Your task to perform on an android device: Open calendar and show me the third week of next month Image 0: 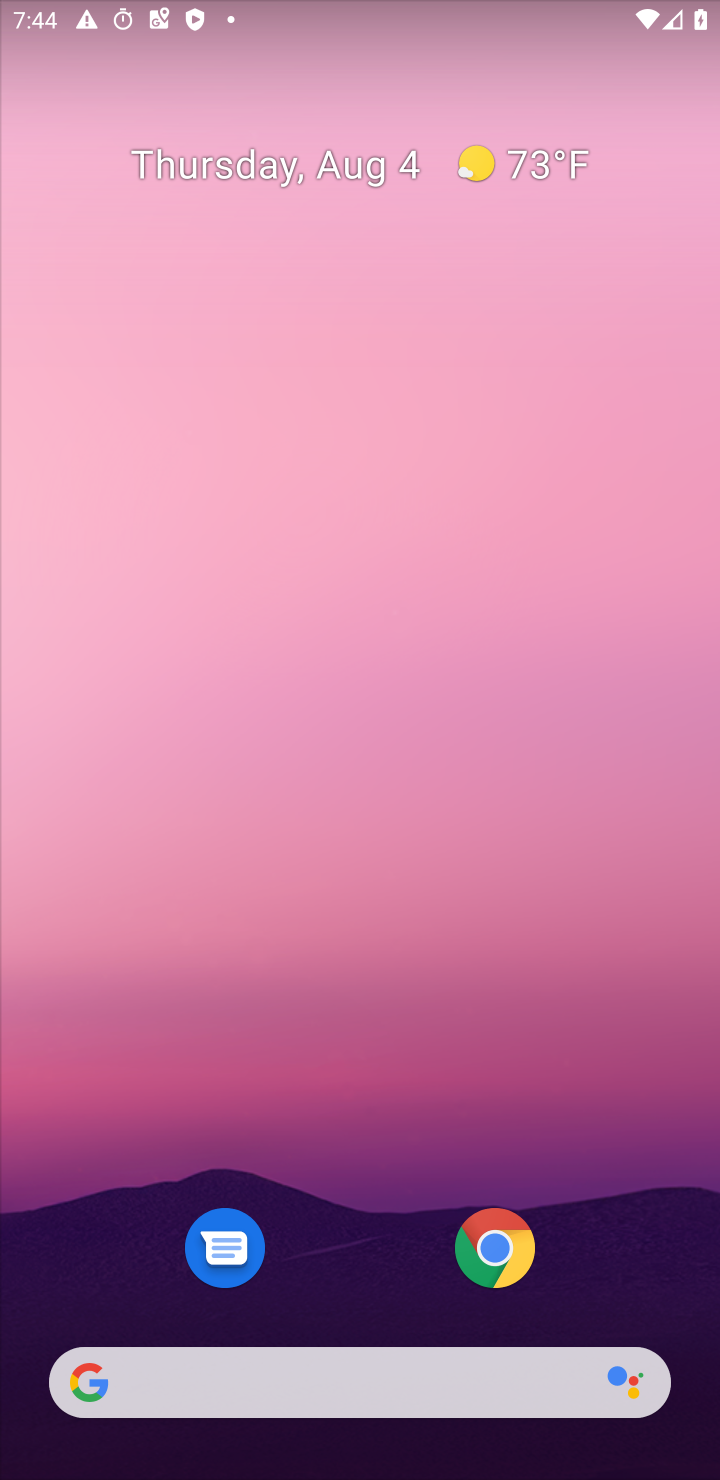
Step 0: drag from (426, 1360) to (240, 203)
Your task to perform on an android device: Open calendar and show me the third week of next month Image 1: 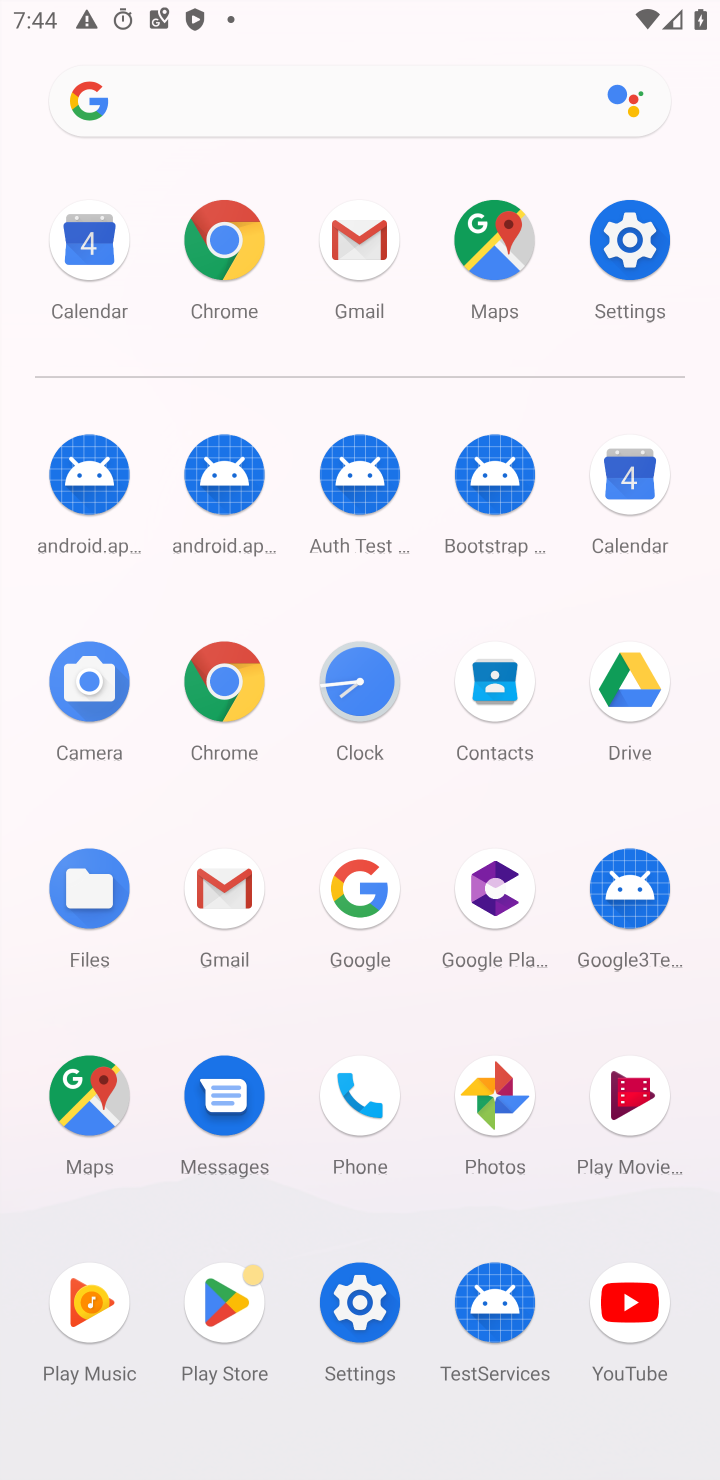
Step 1: click (598, 505)
Your task to perform on an android device: Open calendar and show me the third week of next month Image 2: 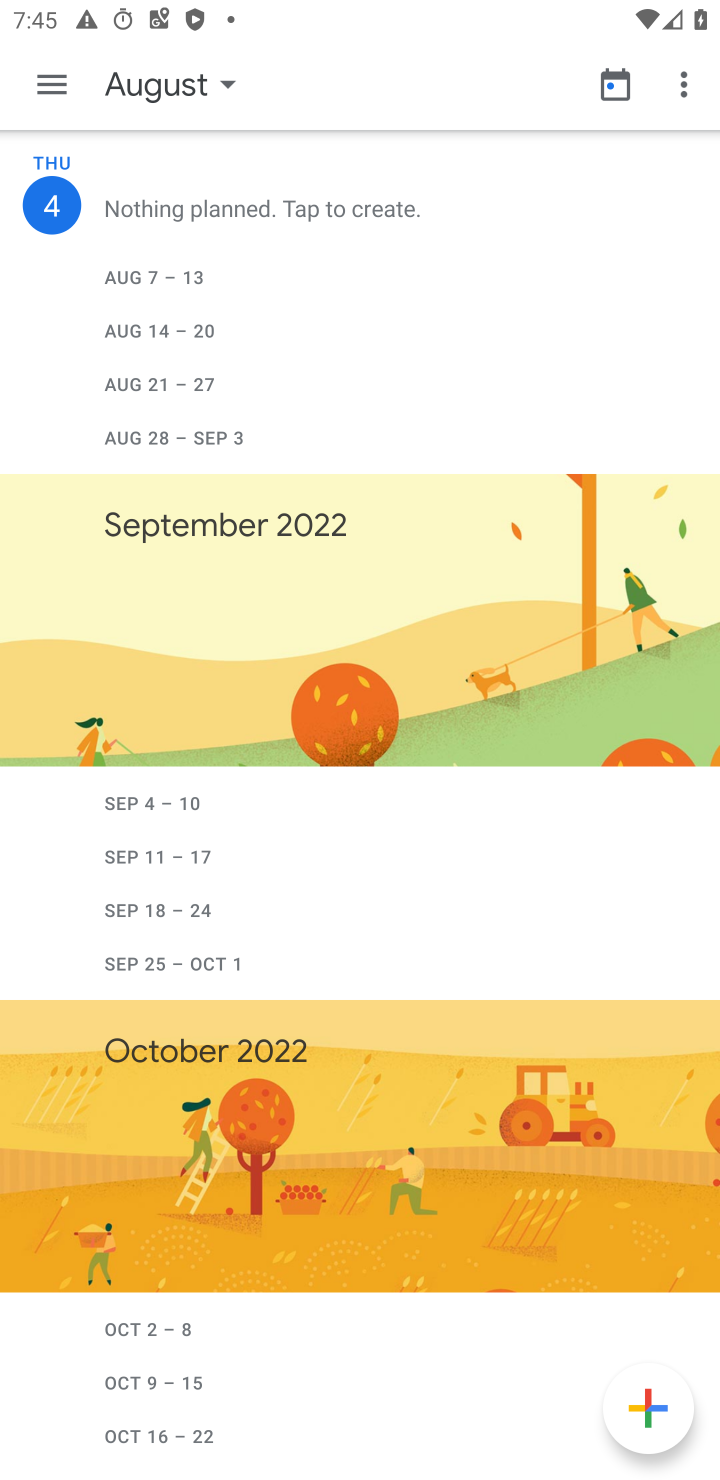
Step 2: click (62, 91)
Your task to perform on an android device: Open calendar and show me the third week of next month Image 3: 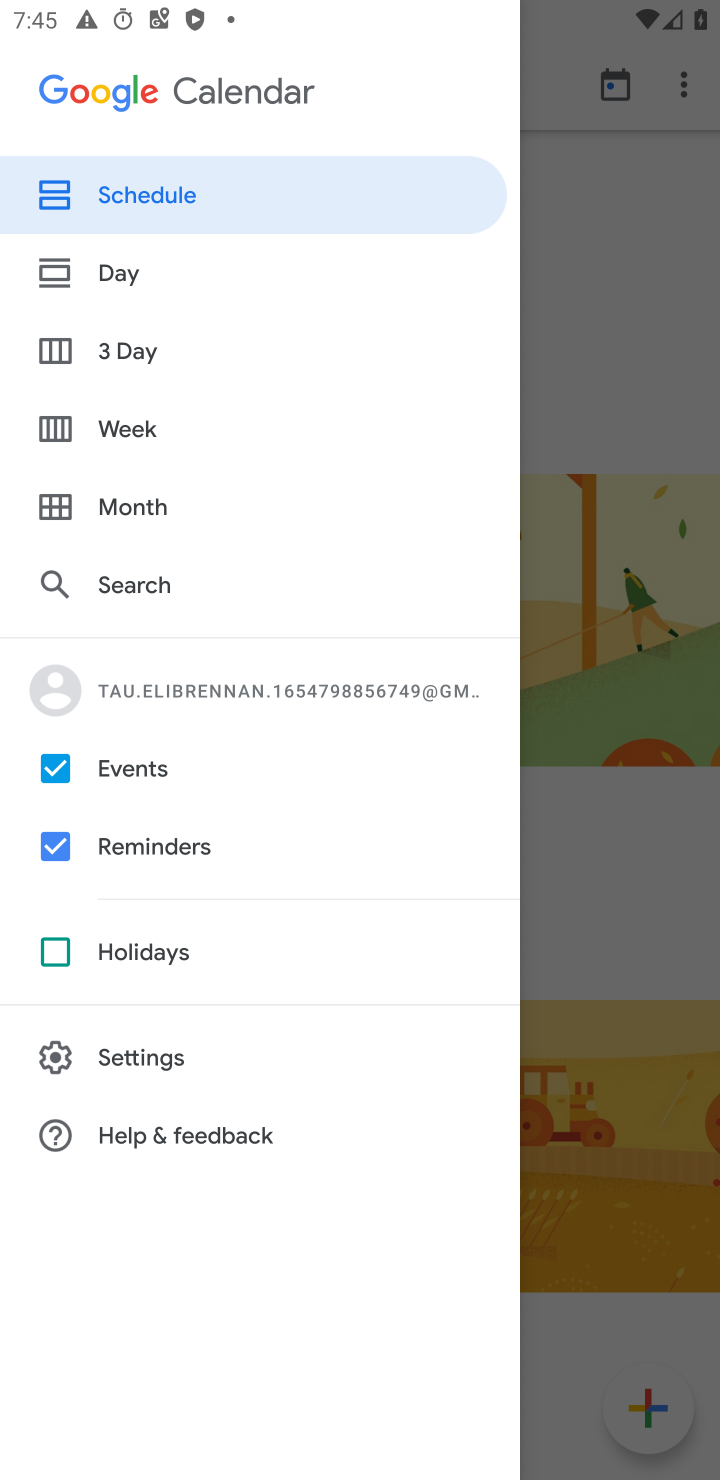
Step 3: click (152, 509)
Your task to perform on an android device: Open calendar and show me the third week of next month Image 4: 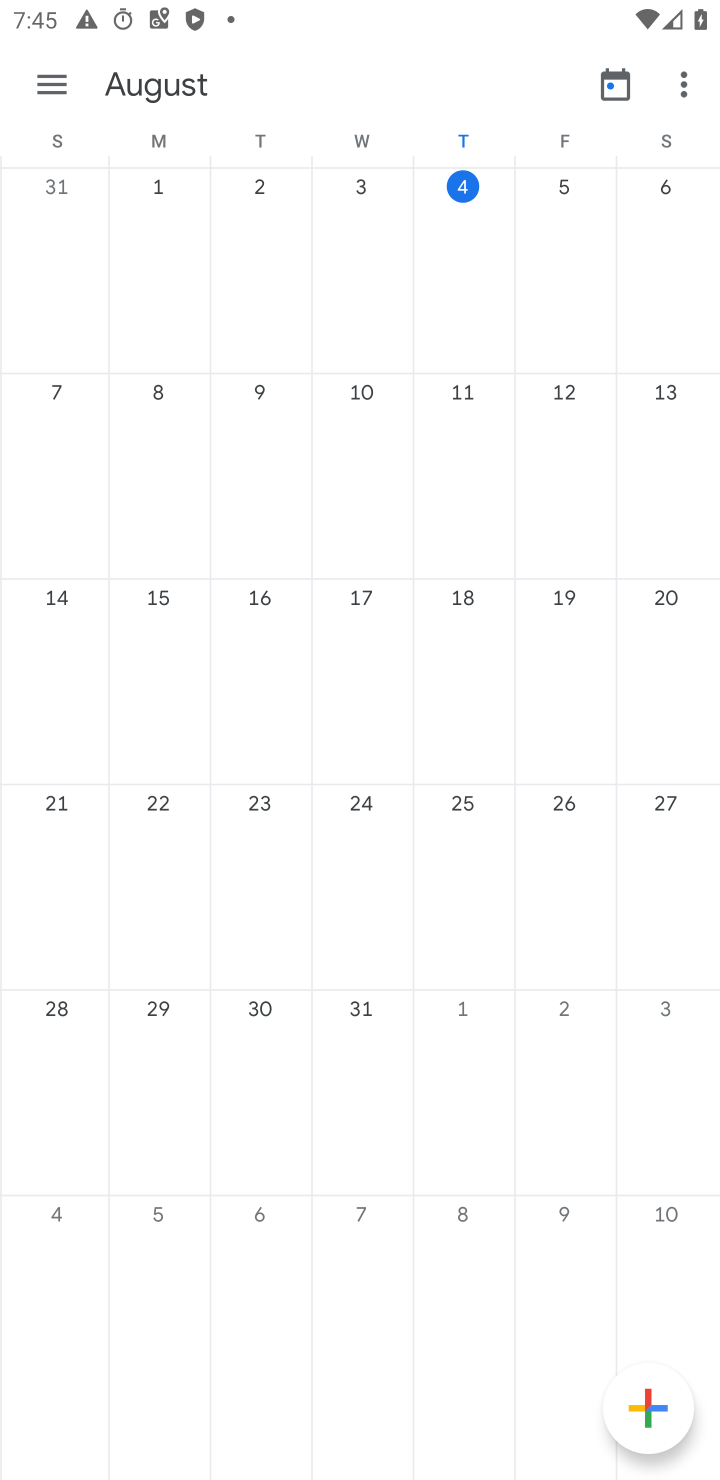
Step 4: drag from (669, 752) to (8, 509)
Your task to perform on an android device: Open calendar and show me the third week of next month Image 5: 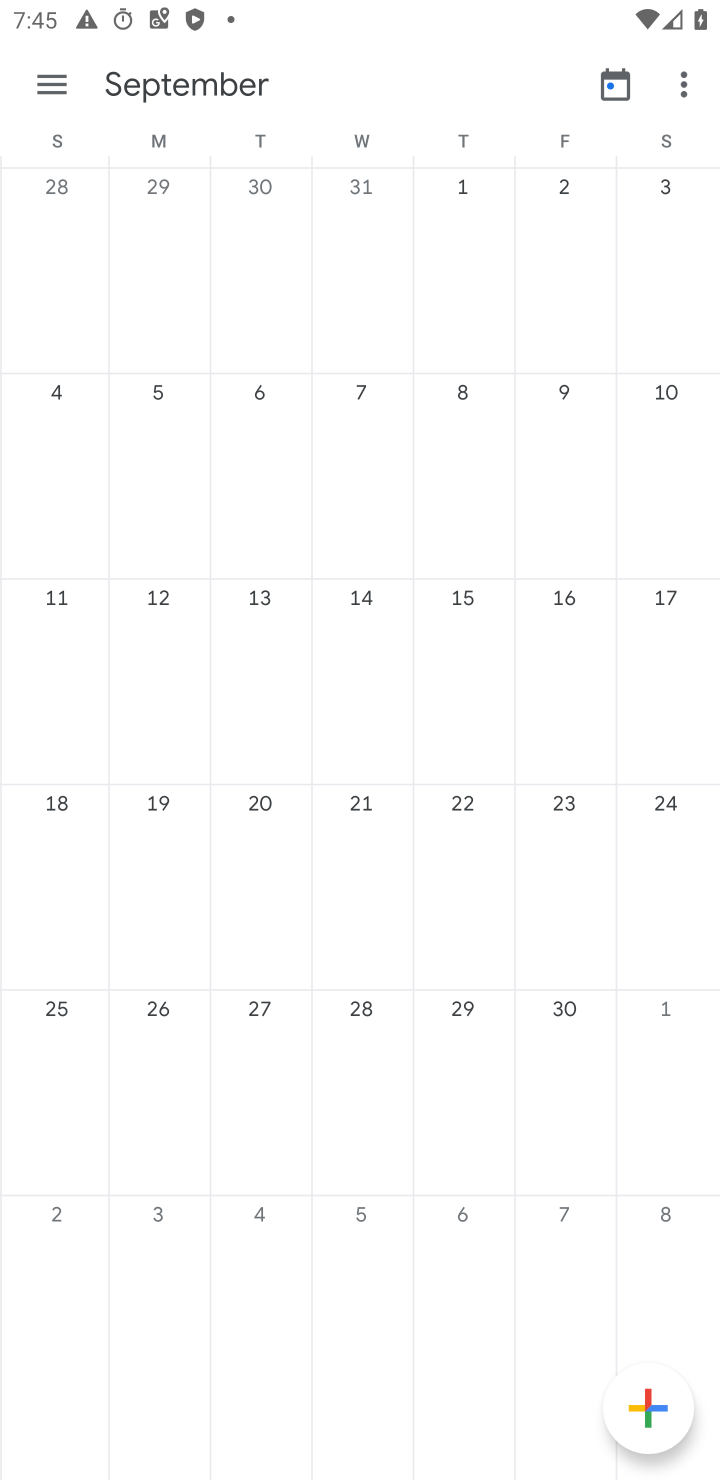
Step 5: click (169, 841)
Your task to perform on an android device: Open calendar and show me the third week of next month Image 6: 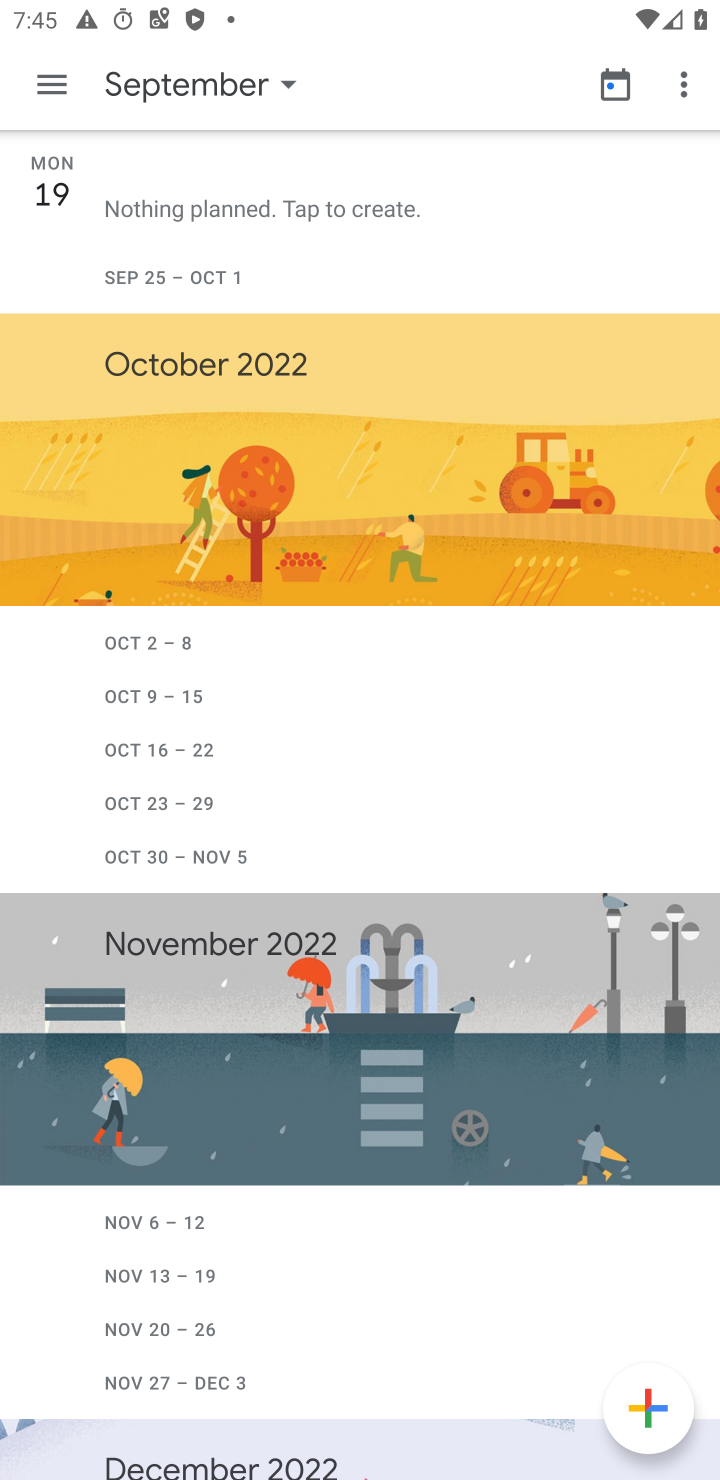
Step 6: task complete